Your task to perform on an android device: Is it going to rain this weekend? Image 0: 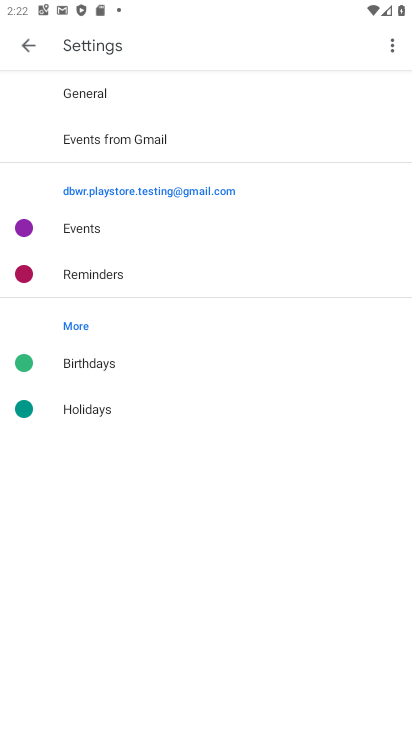
Step 0: press home button
Your task to perform on an android device: Is it going to rain this weekend? Image 1: 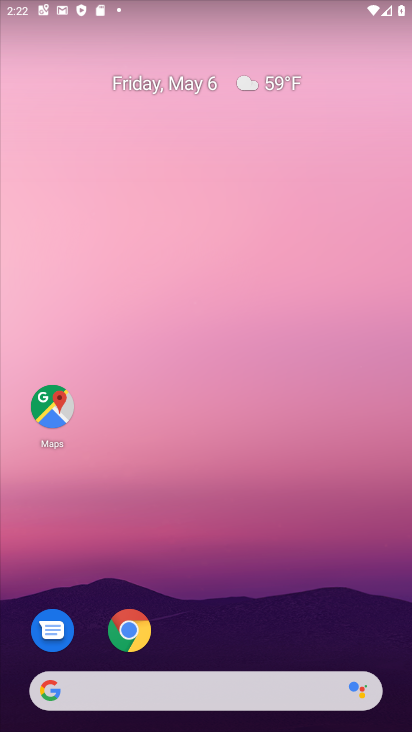
Step 1: drag from (203, 557) to (269, 134)
Your task to perform on an android device: Is it going to rain this weekend? Image 2: 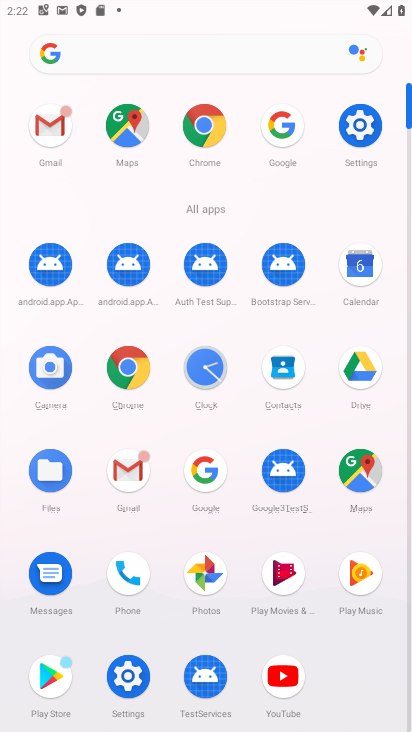
Step 2: click (346, 120)
Your task to perform on an android device: Is it going to rain this weekend? Image 3: 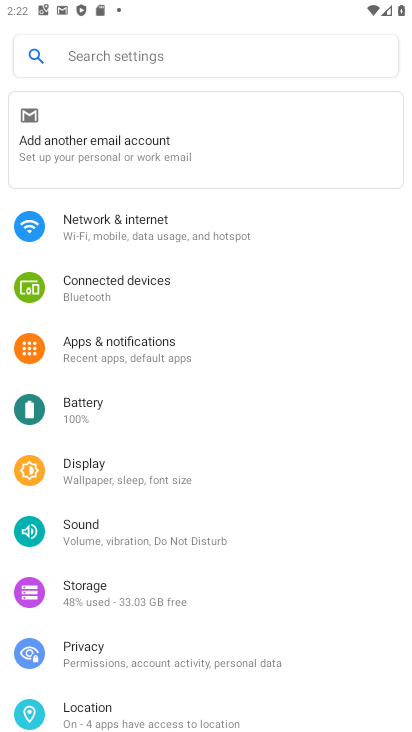
Step 3: press home button
Your task to perform on an android device: Is it going to rain this weekend? Image 4: 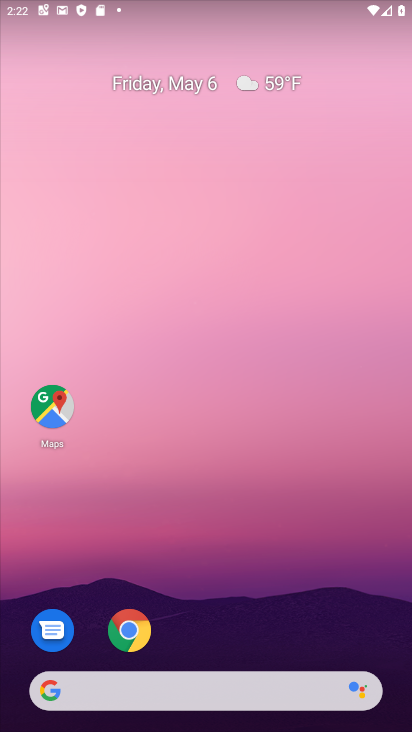
Step 4: drag from (242, 622) to (260, 213)
Your task to perform on an android device: Is it going to rain this weekend? Image 5: 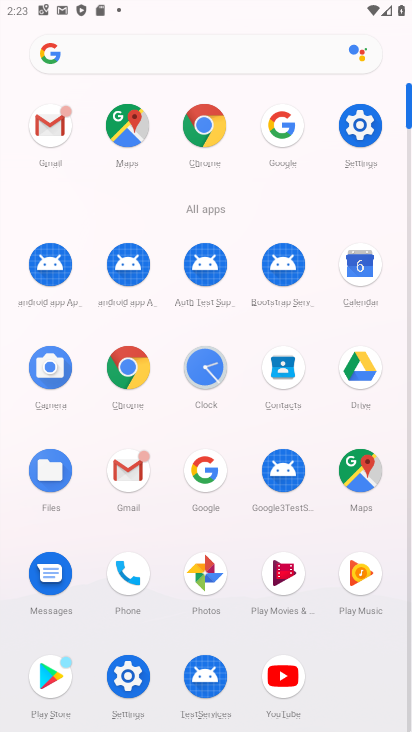
Step 5: click (201, 474)
Your task to perform on an android device: Is it going to rain this weekend? Image 6: 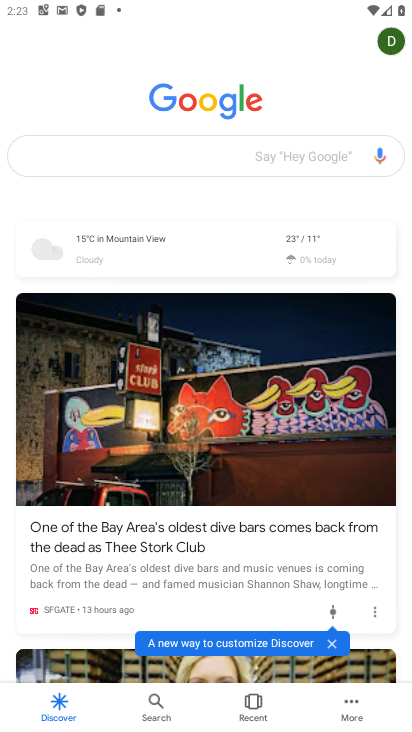
Step 6: click (116, 253)
Your task to perform on an android device: Is it going to rain this weekend? Image 7: 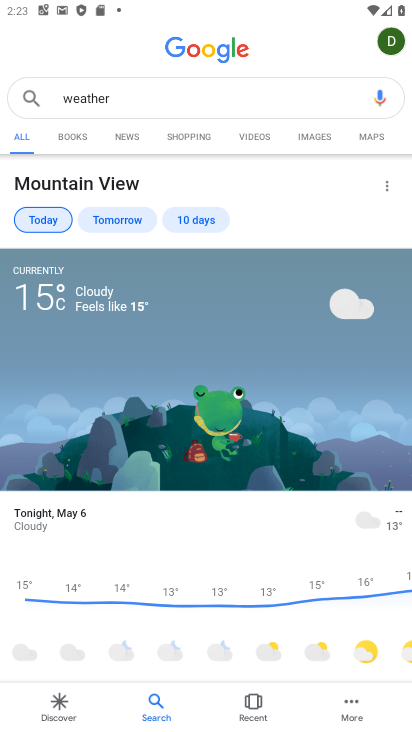
Step 7: click (199, 224)
Your task to perform on an android device: Is it going to rain this weekend? Image 8: 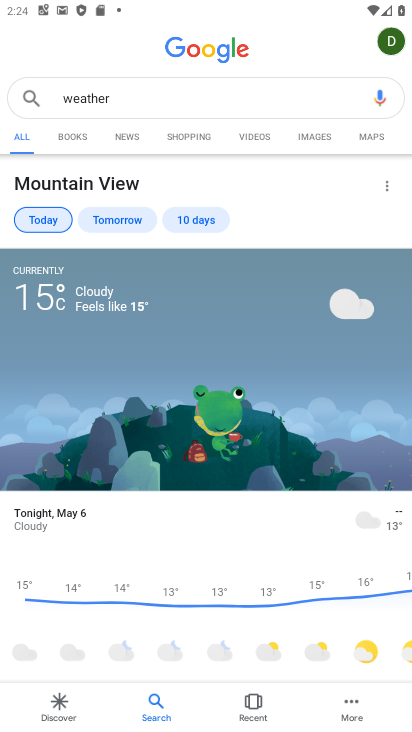
Step 8: click (207, 220)
Your task to perform on an android device: Is it going to rain this weekend? Image 9: 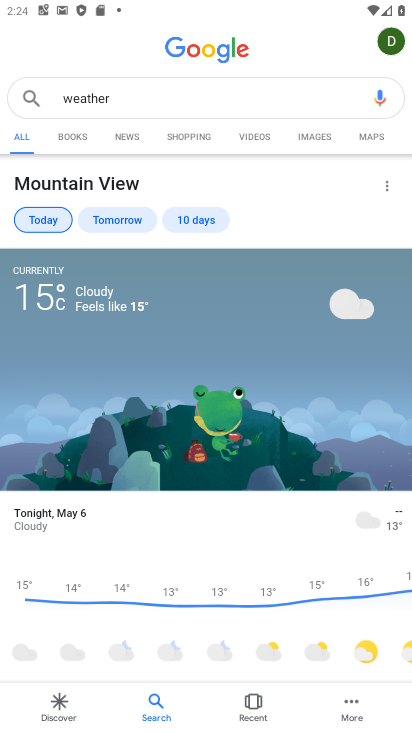
Step 9: task complete